Your task to perform on an android device: Show me productivity apps on the Play Store Image 0: 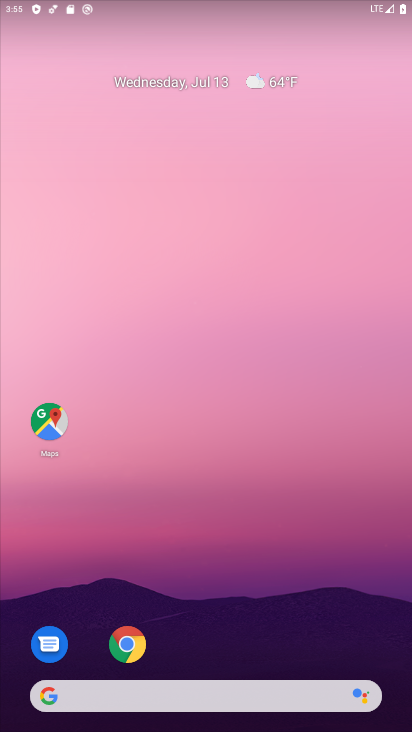
Step 0: drag from (228, 584) to (219, 34)
Your task to perform on an android device: Show me productivity apps on the Play Store Image 1: 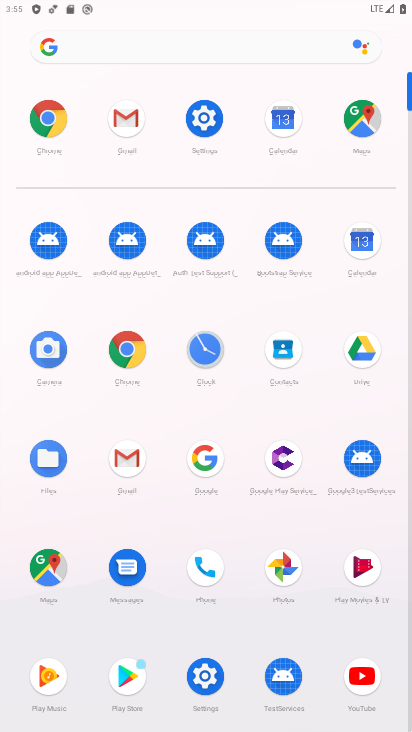
Step 1: click (112, 688)
Your task to perform on an android device: Show me productivity apps on the Play Store Image 2: 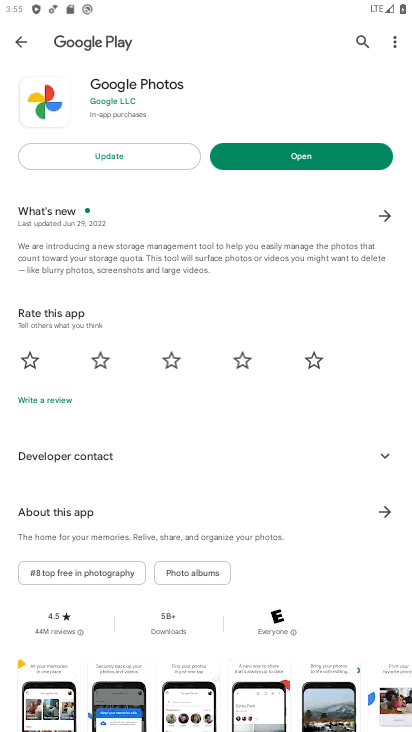
Step 2: click (24, 36)
Your task to perform on an android device: Show me productivity apps on the Play Store Image 3: 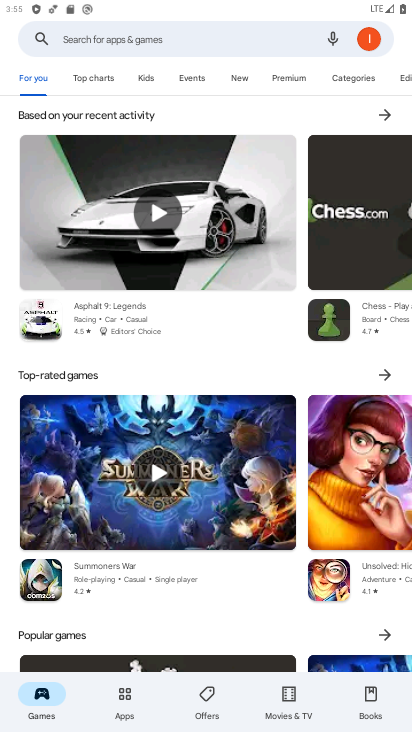
Step 3: click (135, 695)
Your task to perform on an android device: Show me productivity apps on the Play Store Image 4: 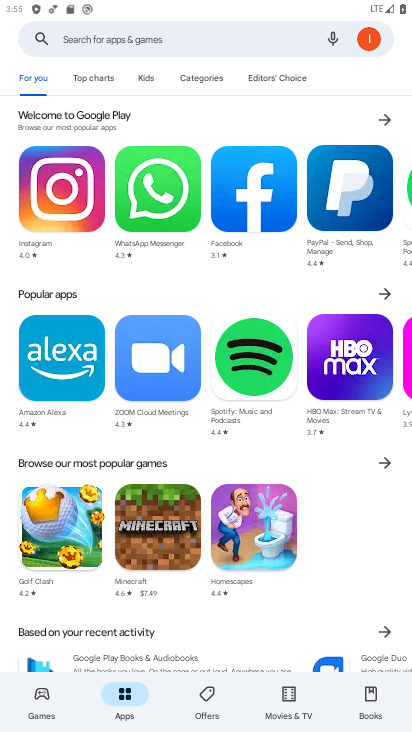
Step 4: drag from (175, 608) to (262, 127)
Your task to perform on an android device: Show me productivity apps on the Play Store Image 5: 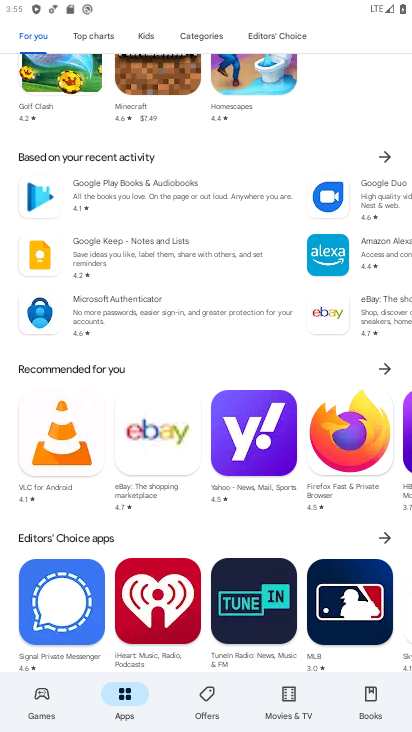
Step 5: drag from (198, 452) to (274, 54)
Your task to perform on an android device: Show me productivity apps on the Play Store Image 6: 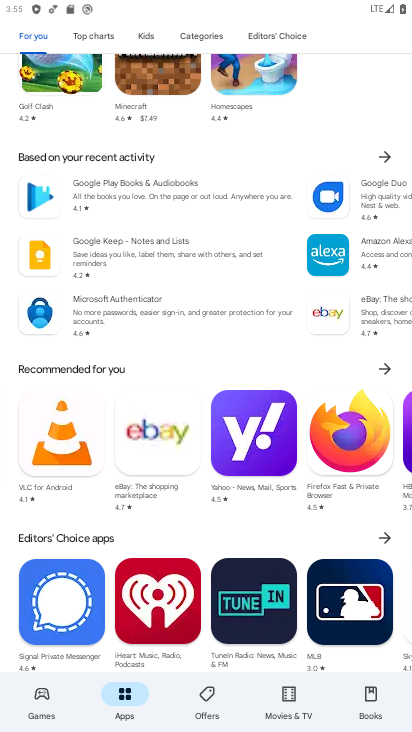
Step 6: drag from (147, 603) to (248, 130)
Your task to perform on an android device: Show me productivity apps on the Play Store Image 7: 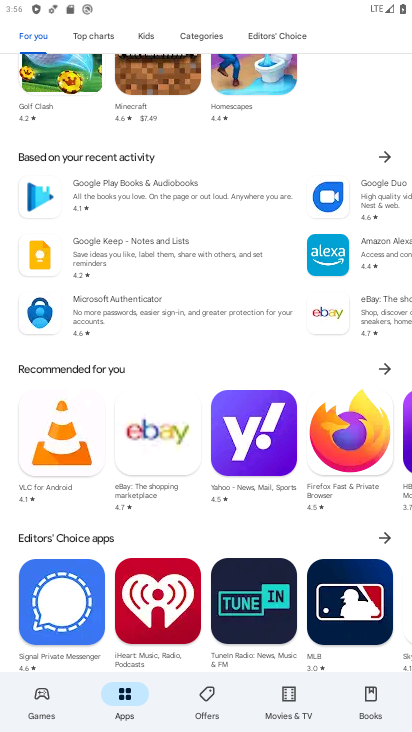
Step 7: drag from (132, 590) to (229, 122)
Your task to perform on an android device: Show me productivity apps on the Play Store Image 8: 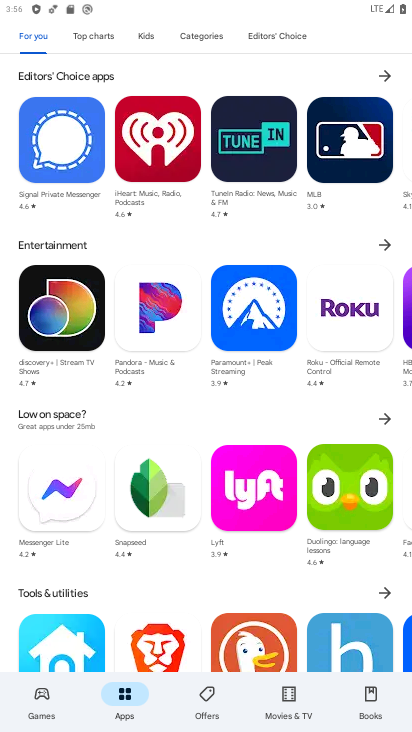
Step 8: drag from (163, 629) to (281, 52)
Your task to perform on an android device: Show me productivity apps on the Play Store Image 9: 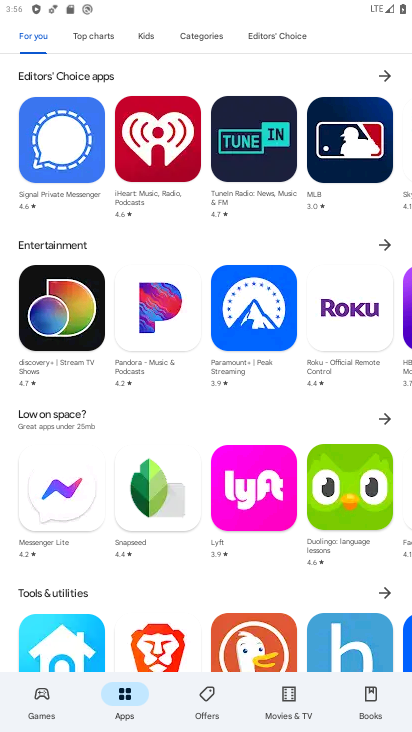
Step 9: drag from (113, 602) to (172, 241)
Your task to perform on an android device: Show me productivity apps on the Play Store Image 10: 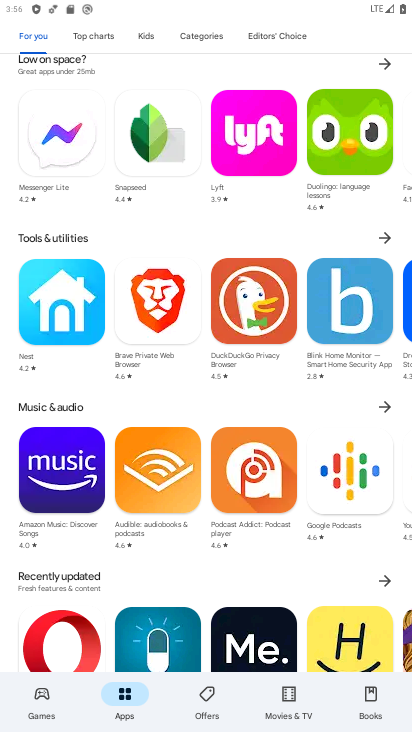
Step 10: drag from (113, 623) to (191, 102)
Your task to perform on an android device: Show me productivity apps on the Play Store Image 11: 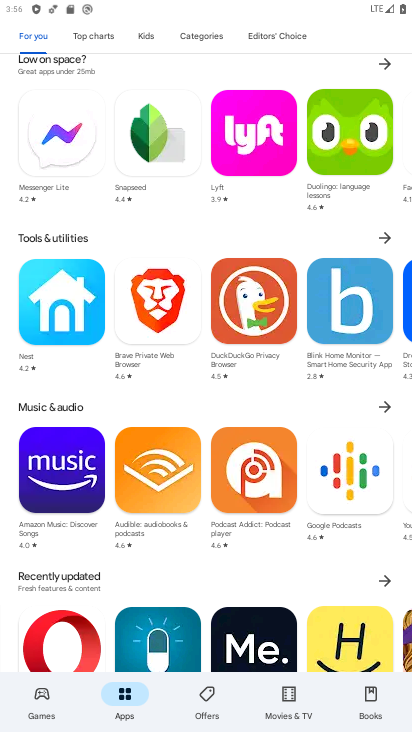
Step 11: drag from (59, 393) to (110, 61)
Your task to perform on an android device: Show me productivity apps on the Play Store Image 12: 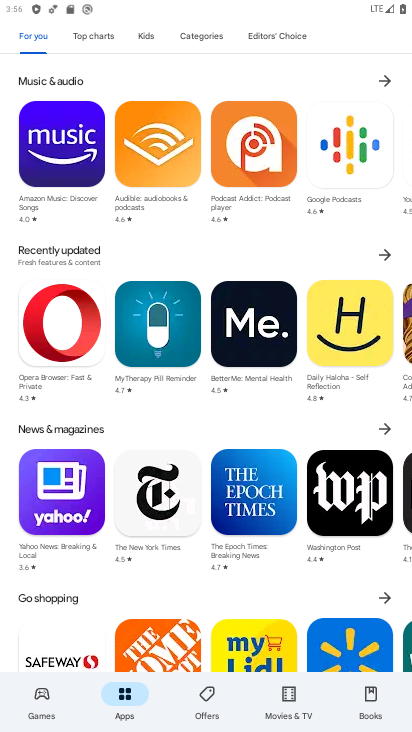
Step 12: drag from (20, 622) to (49, 90)
Your task to perform on an android device: Show me productivity apps on the Play Store Image 13: 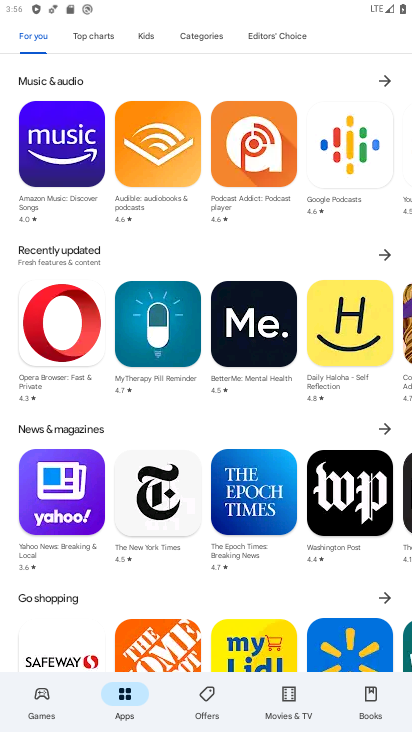
Step 13: drag from (10, 635) to (27, 166)
Your task to perform on an android device: Show me productivity apps on the Play Store Image 14: 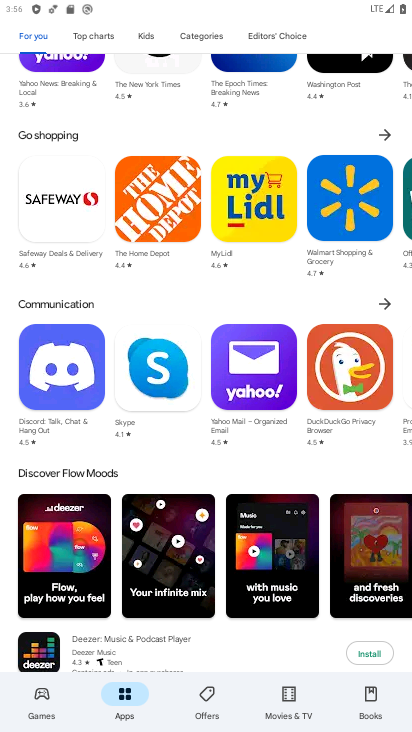
Step 14: drag from (7, 619) to (82, 131)
Your task to perform on an android device: Show me productivity apps on the Play Store Image 15: 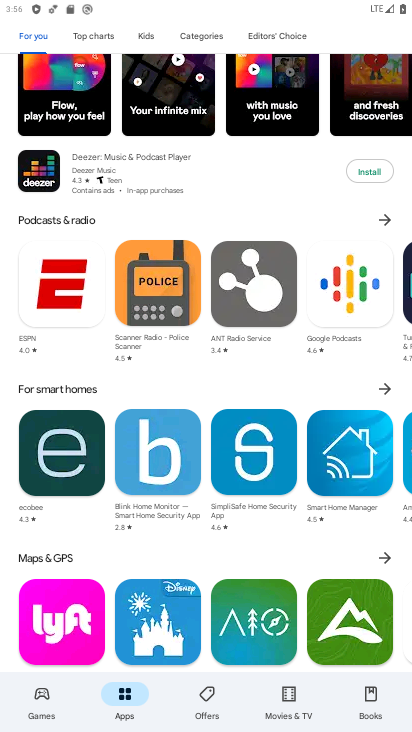
Step 15: drag from (4, 621) to (52, 106)
Your task to perform on an android device: Show me productivity apps on the Play Store Image 16: 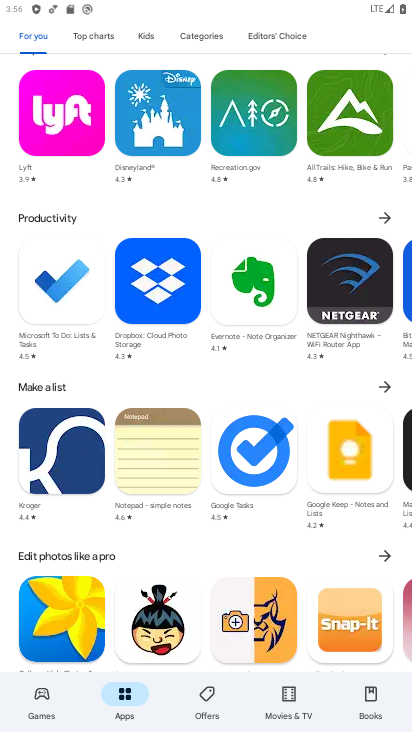
Step 16: click (385, 217)
Your task to perform on an android device: Show me productivity apps on the Play Store Image 17: 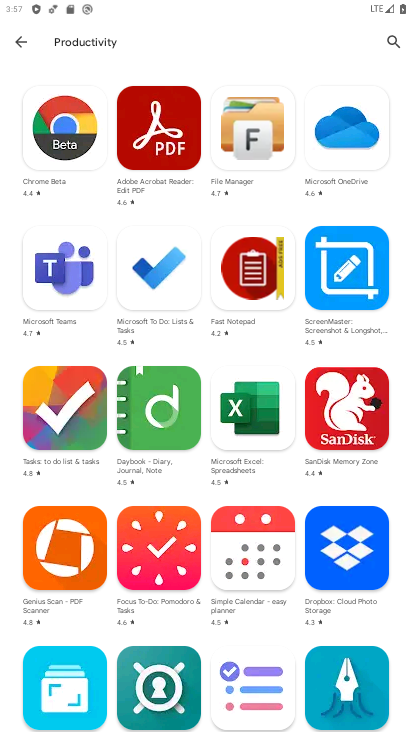
Step 17: task complete